Your task to perform on an android device: Open Google Chrome and open the bookmarks view Image 0: 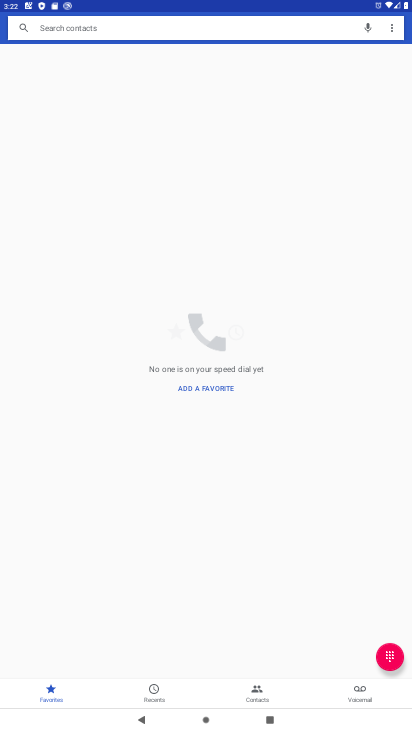
Step 0: press home button
Your task to perform on an android device: Open Google Chrome and open the bookmarks view Image 1: 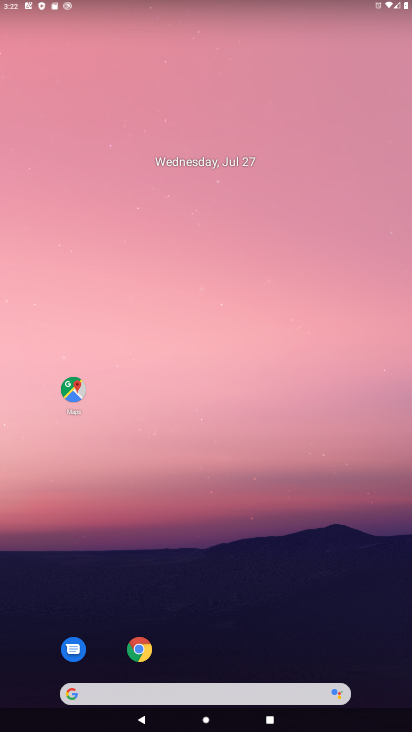
Step 1: click (140, 648)
Your task to perform on an android device: Open Google Chrome and open the bookmarks view Image 2: 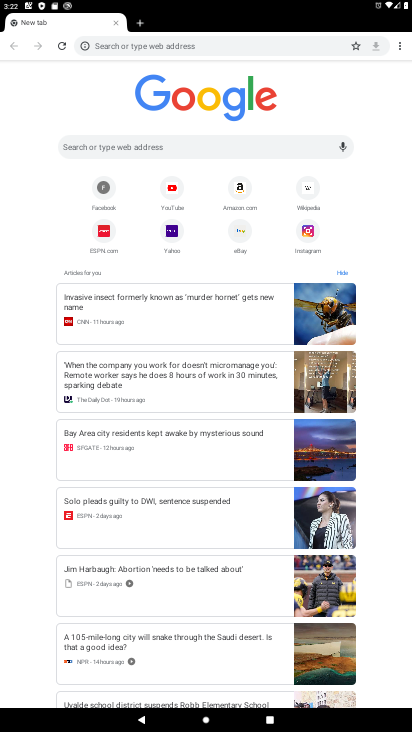
Step 2: click (399, 52)
Your task to perform on an android device: Open Google Chrome and open the bookmarks view Image 3: 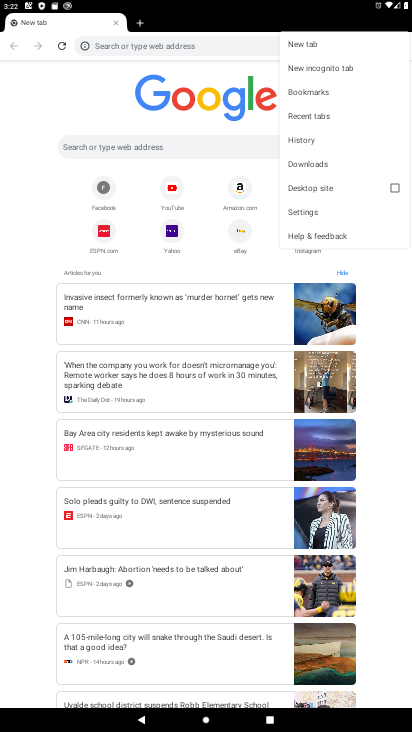
Step 3: click (299, 84)
Your task to perform on an android device: Open Google Chrome and open the bookmarks view Image 4: 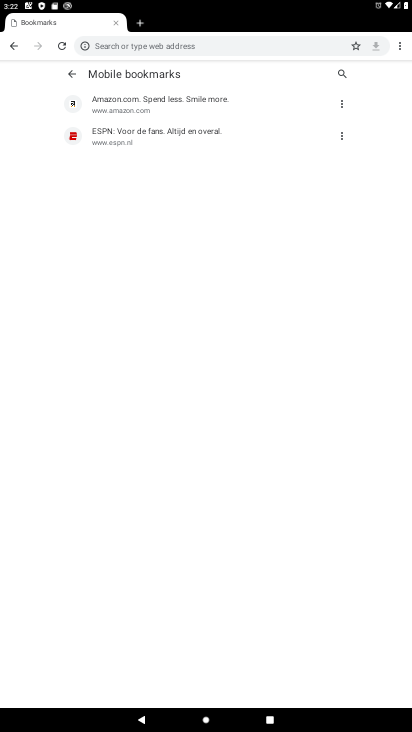
Step 4: task complete